Your task to perform on an android device: Open Google Chrome and open the bookmarks view Image 0: 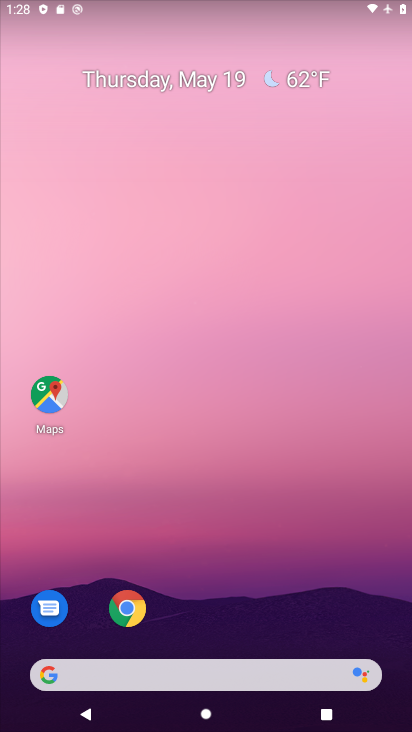
Step 0: click (99, 612)
Your task to perform on an android device: Open Google Chrome and open the bookmarks view Image 1: 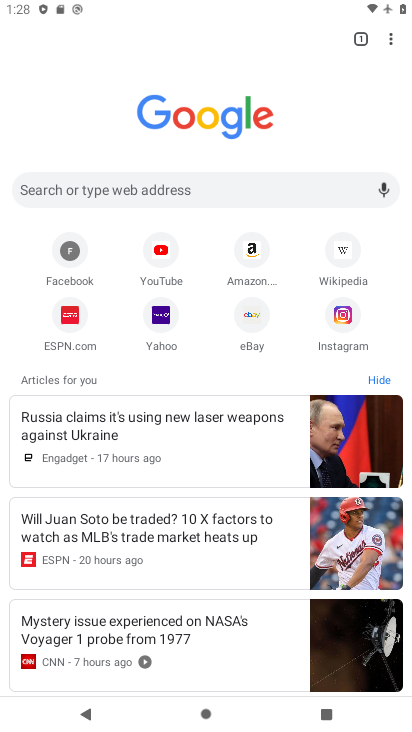
Step 1: click (393, 37)
Your task to perform on an android device: Open Google Chrome and open the bookmarks view Image 2: 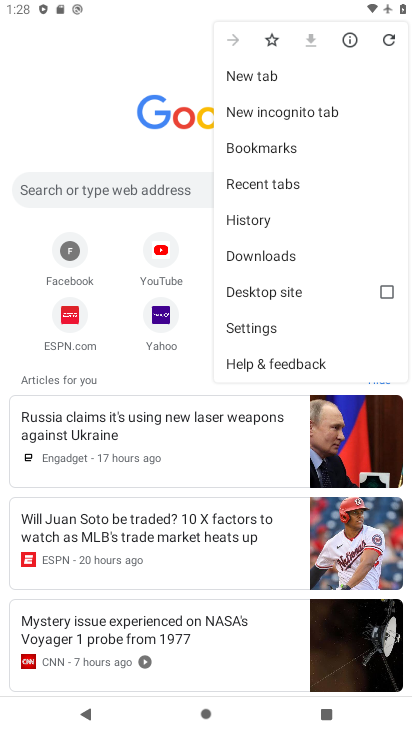
Step 2: click (340, 145)
Your task to perform on an android device: Open Google Chrome and open the bookmarks view Image 3: 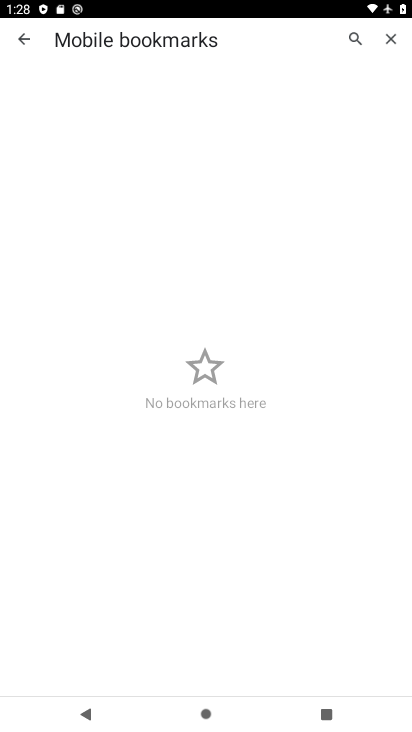
Step 3: task complete